Your task to perform on an android device: make emails show in primary in the gmail app Image 0: 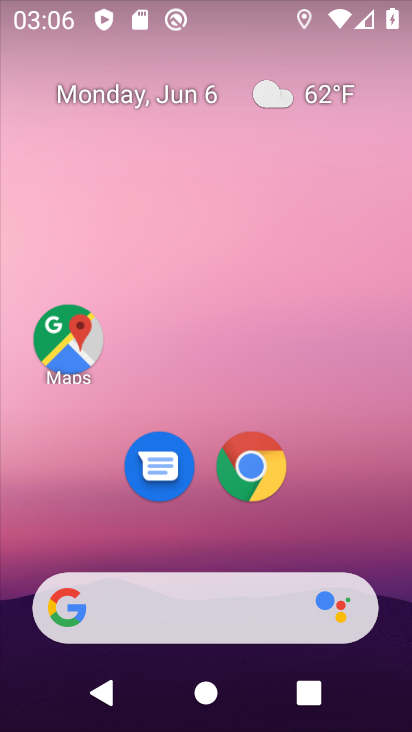
Step 0: drag from (338, 390) to (285, 60)
Your task to perform on an android device: make emails show in primary in the gmail app Image 1: 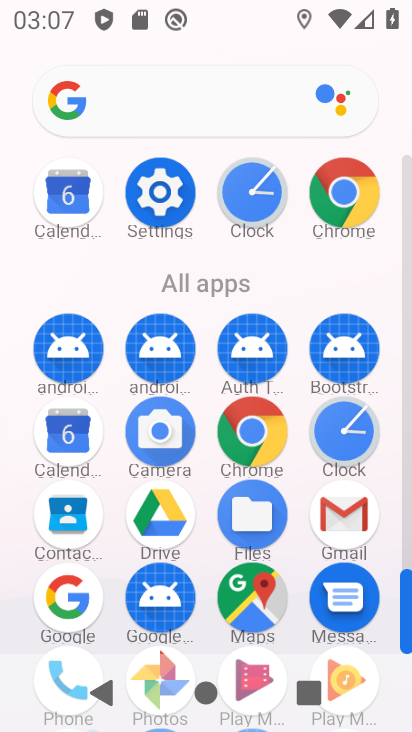
Step 1: click (352, 518)
Your task to perform on an android device: make emails show in primary in the gmail app Image 2: 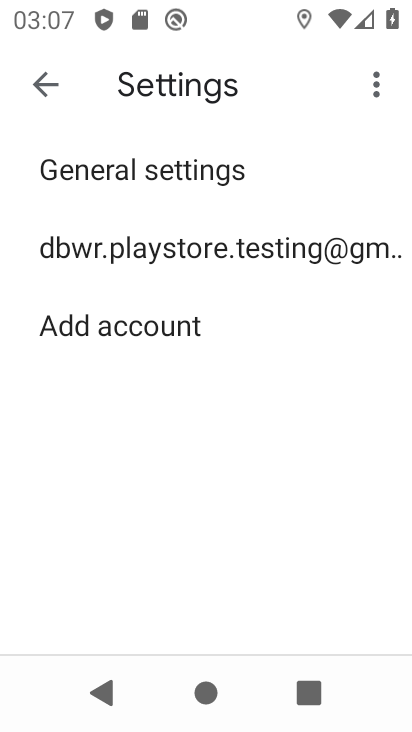
Step 2: click (176, 260)
Your task to perform on an android device: make emails show in primary in the gmail app Image 3: 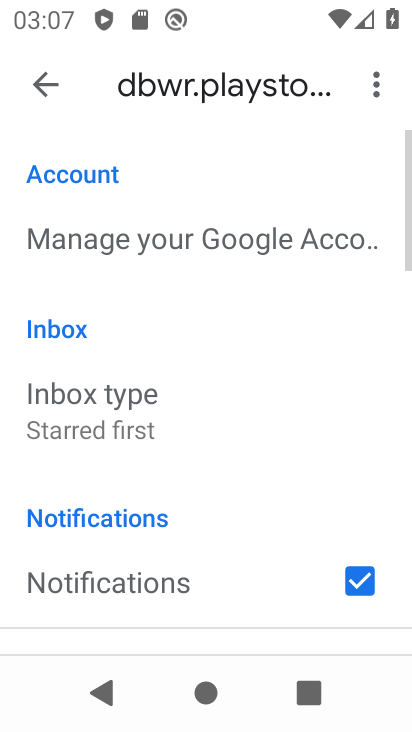
Step 3: click (100, 426)
Your task to perform on an android device: make emails show in primary in the gmail app Image 4: 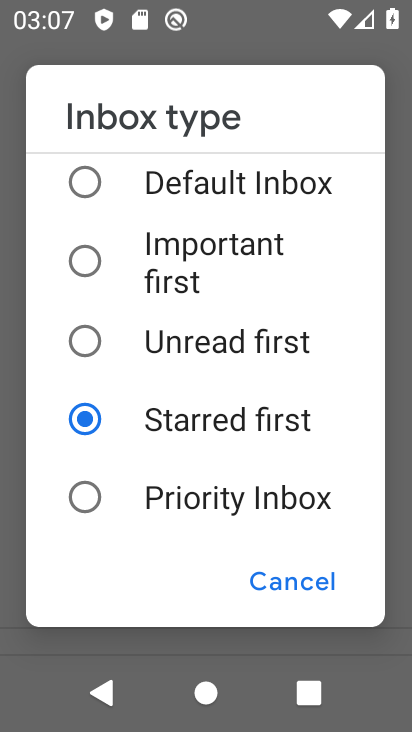
Step 4: click (147, 184)
Your task to perform on an android device: make emails show in primary in the gmail app Image 5: 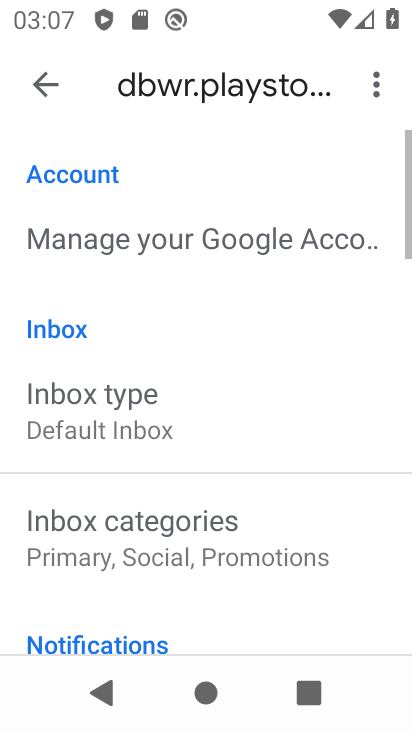
Step 5: click (187, 553)
Your task to perform on an android device: make emails show in primary in the gmail app Image 6: 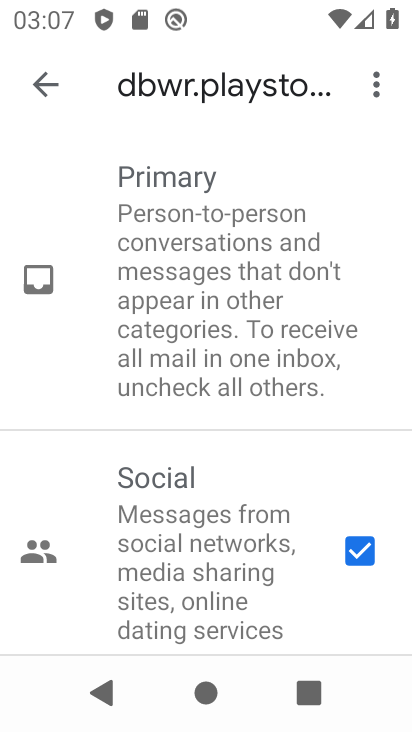
Step 6: task complete